Your task to perform on an android device: add a contact Image 0: 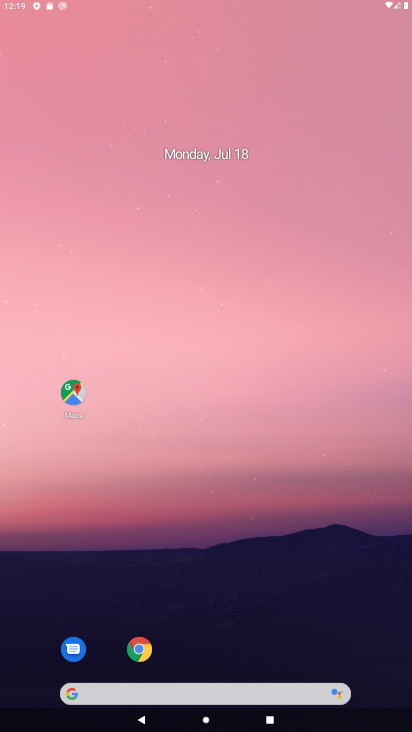
Step 0: drag from (266, 18) to (232, 145)
Your task to perform on an android device: add a contact Image 1: 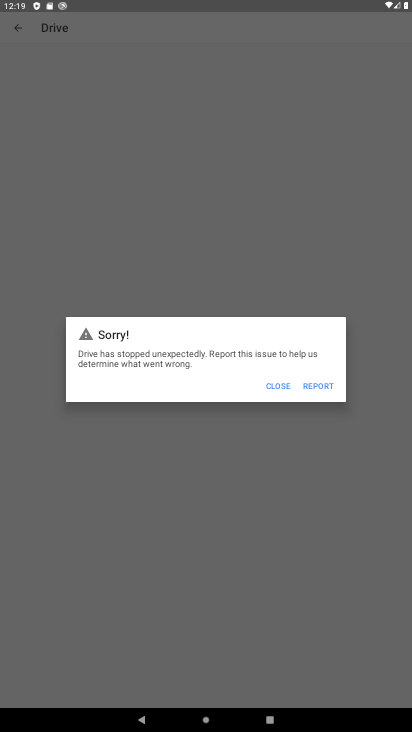
Step 1: press home button
Your task to perform on an android device: add a contact Image 2: 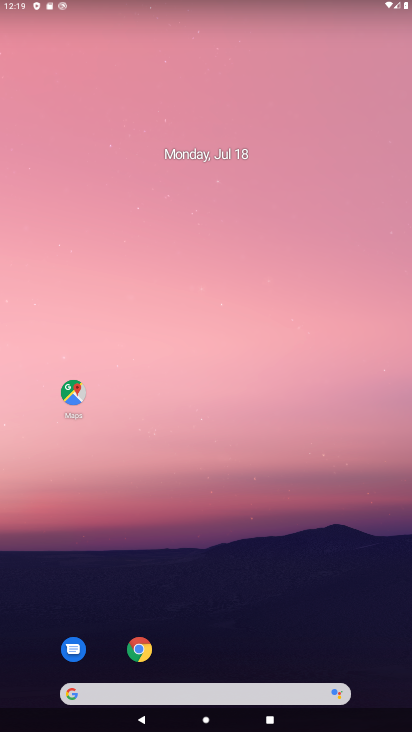
Step 2: drag from (134, 405) to (295, 63)
Your task to perform on an android device: add a contact Image 3: 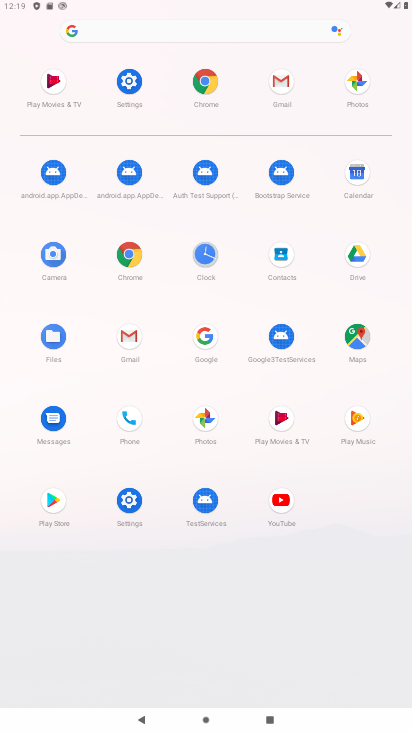
Step 3: click (296, 271)
Your task to perform on an android device: add a contact Image 4: 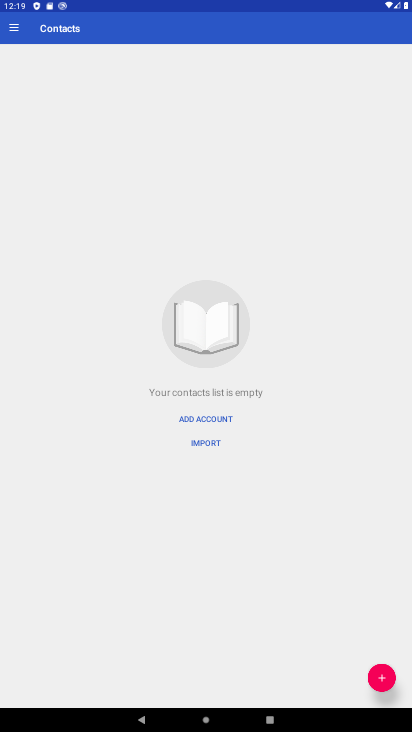
Step 4: click (389, 676)
Your task to perform on an android device: add a contact Image 5: 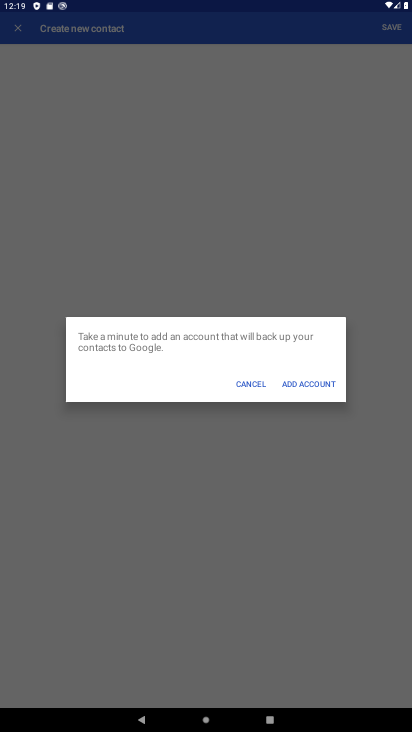
Step 5: click (321, 384)
Your task to perform on an android device: add a contact Image 6: 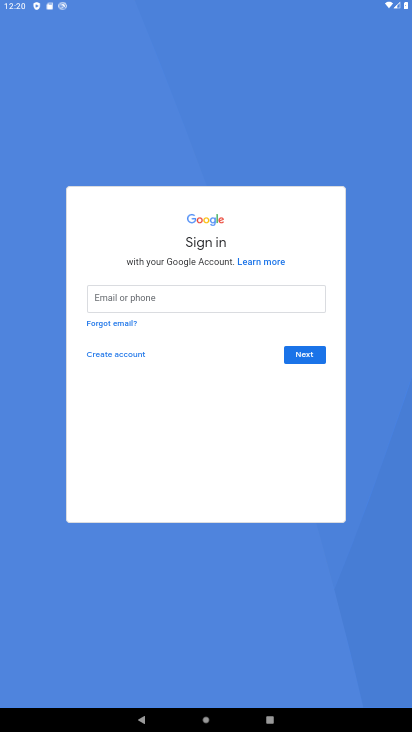
Step 6: task complete